Your task to perform on an android device: Open Google Maps and go to "Timeline" Image 0: 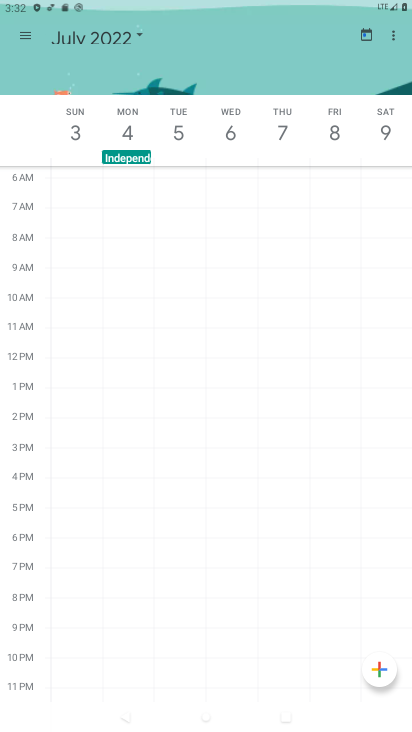
Step 0: press home button
Your task to perform on an android device: Open Google Maps and go to "Timeline" Image 1: 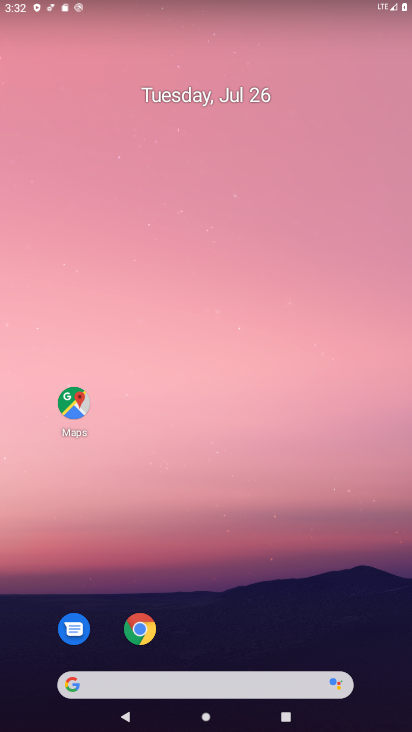
Step 1: drag from (224, 691) to (224, 79)
Your task to perform on an android device: Open Google Maps and go to "Timeline" Image 2: 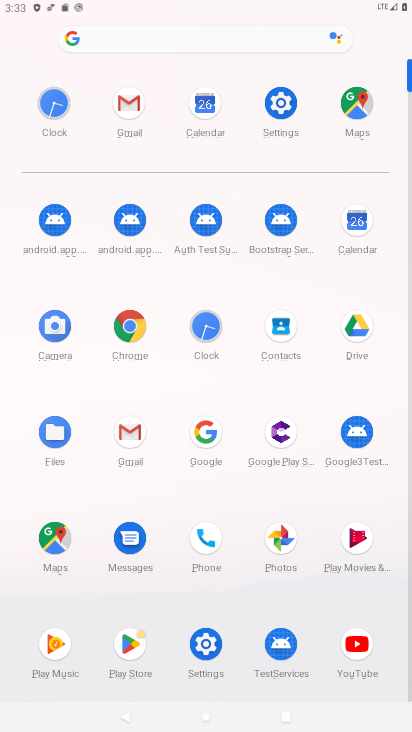
Step 2: click (49, 539)
Your task to perform on an android device: Open Google Maps and go to "Timeline" Image 3: 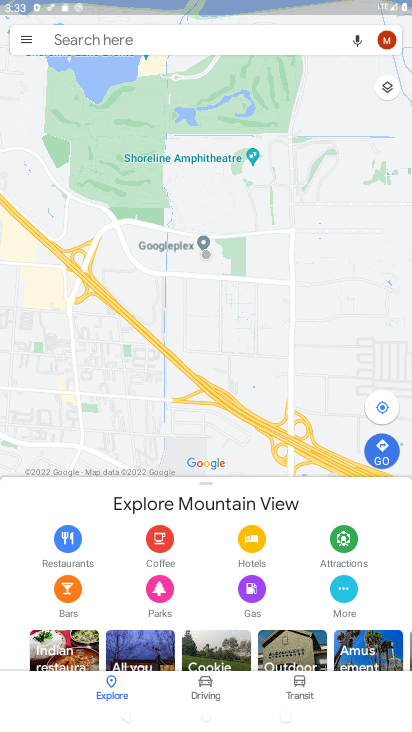
Step 3: click (25, 37)
Your task to perform on an android device: Open Google Maps and go to "Timeline" Image 4: 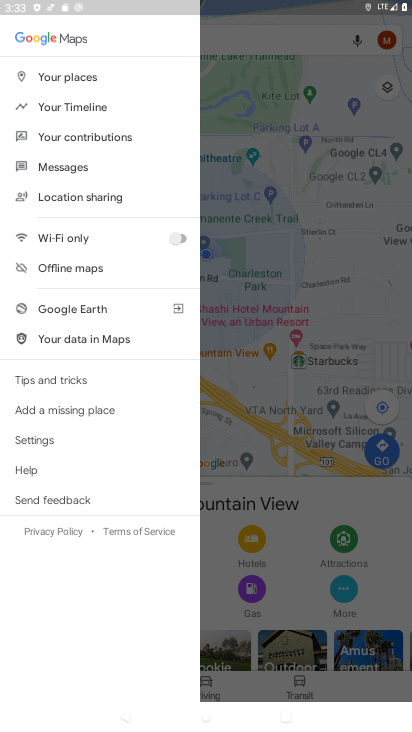
Step 4: click (70, 104)
Your task to perform on an android device: Open Google Maps and go to "Timeline" Image 5: 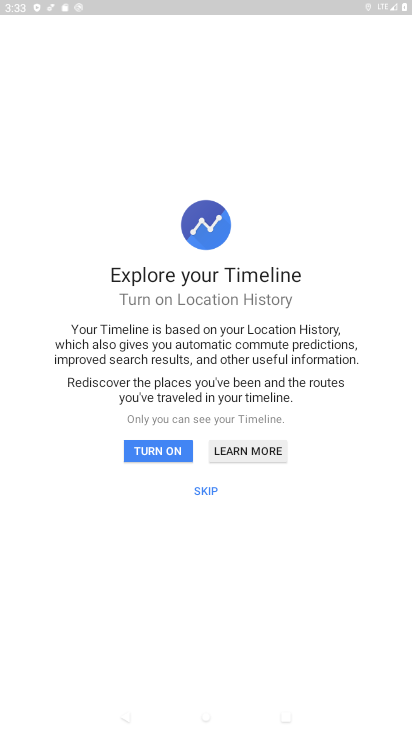
Step 5: click (201, 488)
Your task to perform on an android device: Open Google Maps and go to "Timeline" Image 6: 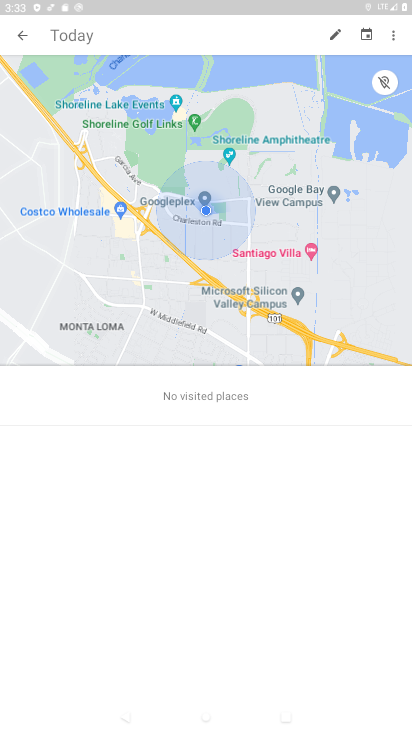
Step 6: task complete